Your task to perform on an android device: read, delete, or share a saved page in the chrome app Image 0: 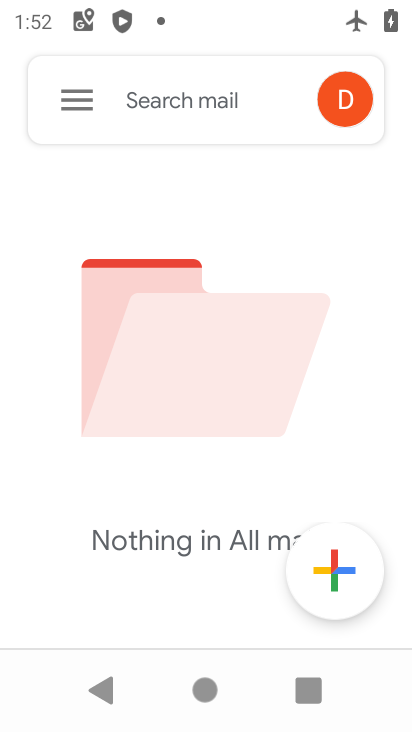
Step 0: press home button
Your task to perform on an android device: read, delete, or share a saved page in the chrome app Image 1: 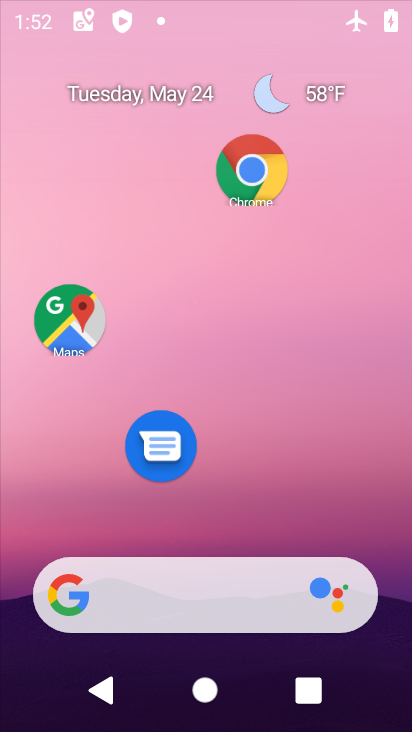
Step 1: drag from (246, 680) to (231, 192)
Your task to perform on an android device: read, delete, or share a saved page in the chrome app Image 2: 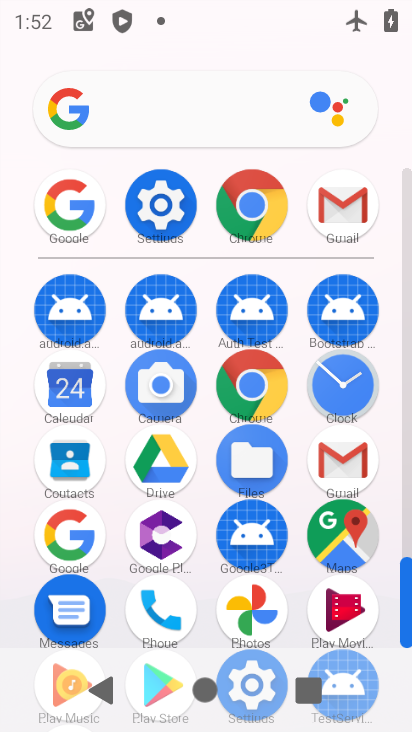
Step 2: click (250, 388)
Your task to perform on an android device: read, delete, or share a saved page in the chrome app Image 3: 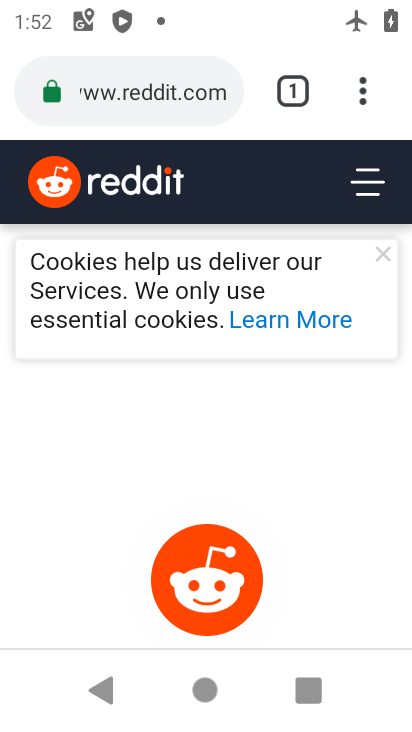
Step 3: click (368, 91)
Your task to perform on an android device: read, delete, or share a saved page in the chrome app Image 4: 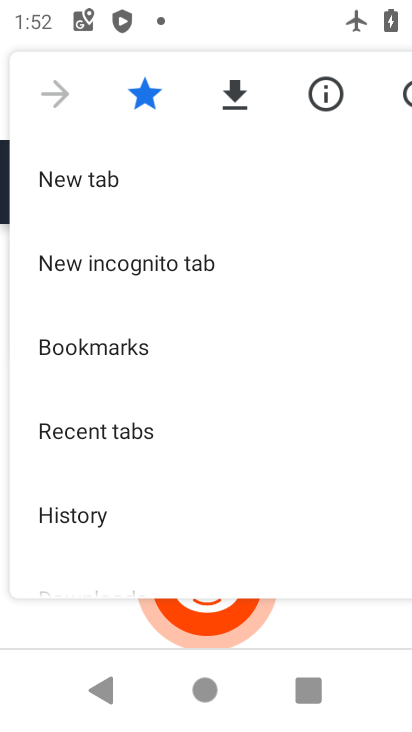
Step 4: drag from (99, 417) to (134, 140)
Your task to perform on an android device: read, delete, or share a saved page in the chrome app Image 5: 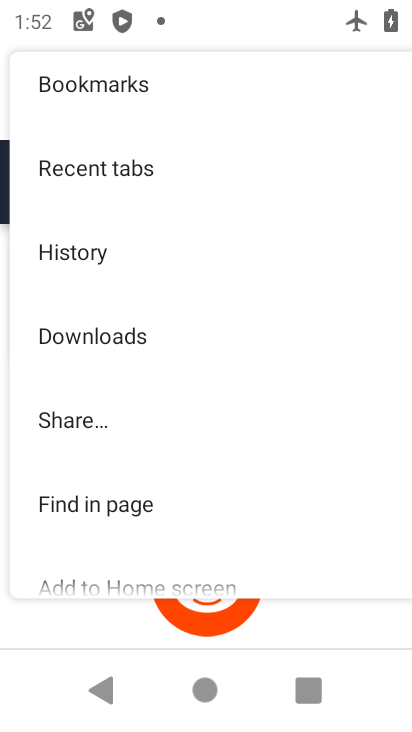
Step 5: click (137, 338)
Your task to perform on an android device: read, delete, or share a saved page in the chrome app Image 6: 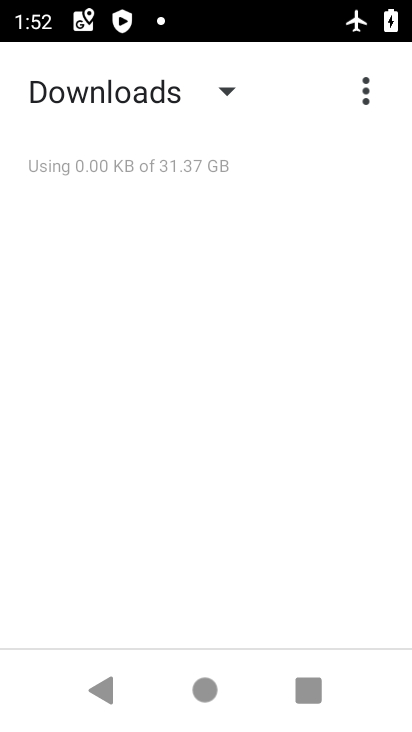
Step 6: click (225, 96)
Your task to perform on an android device: read, delete, or share a saved page in the chrome app Image 7: 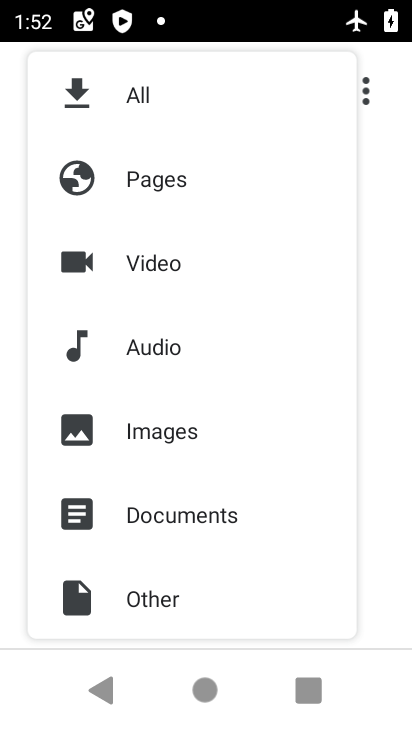
Step 7: click (163, 192)
Your task to perform on an android device: read, delete, or share a saved page in the chrome app Image 8: 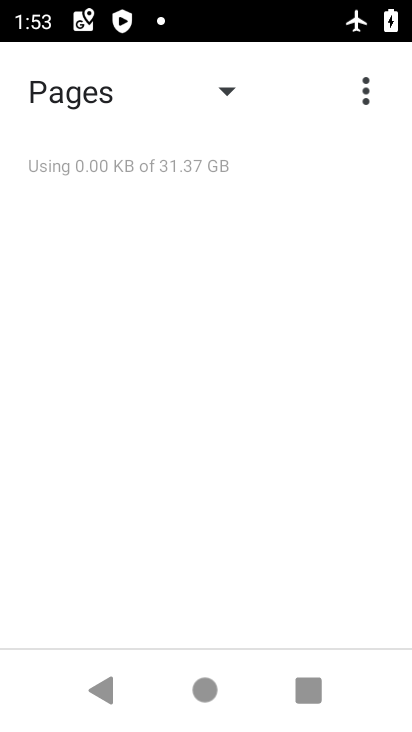
Step 8: task complete